Your task to perform on an android device: turn off improve location accuracy Image 0: 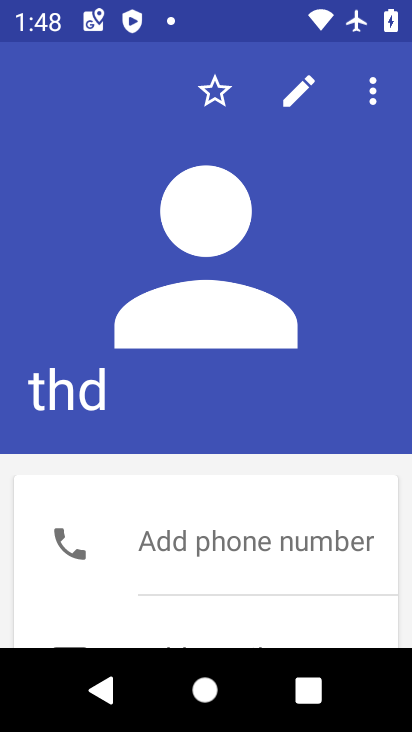
Step 0: press home button
Your task to perform on an android device: turn off improve location accuracy Image 1: 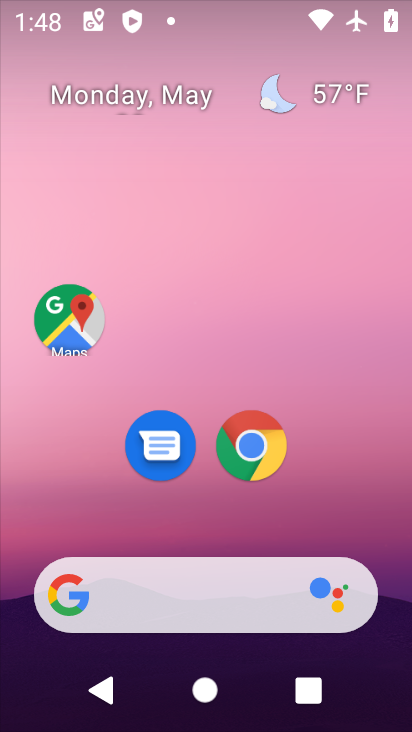
Step 1: drag from (237, 509) to (228, 124)
Your task to perform on an android device: turn off improve location accuracy Image 2: 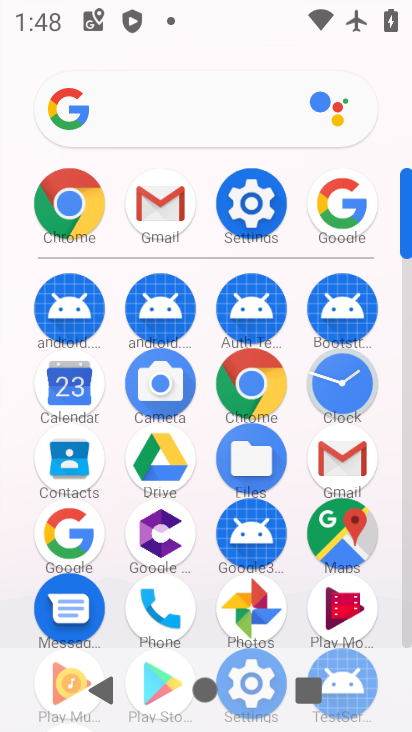
Step 2: click (253, 207)
Your task to perform on an android device: turn off improve location accuracy Image 3: 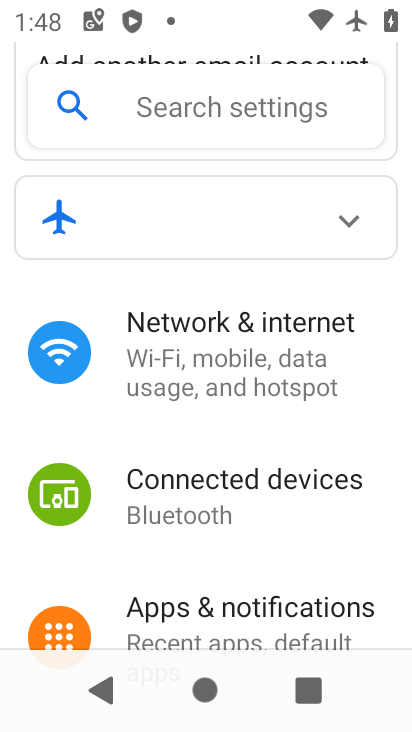
Step 3: drag from (240, 514) to (246, 118)
Your task to perform on an android device: turn off improve location accuracy Image 4: 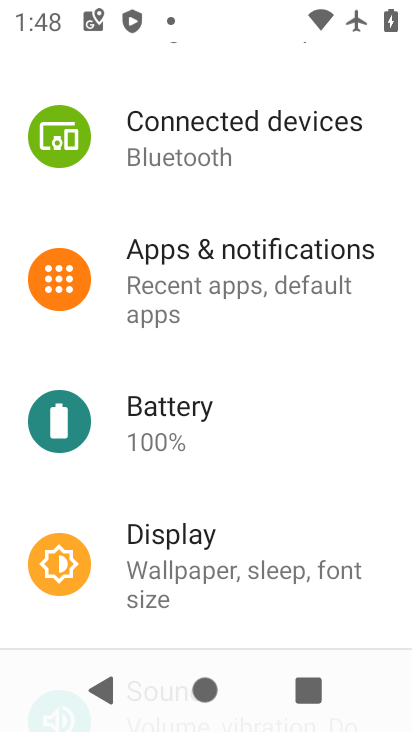
Step 4: drag from (212, 598) to (218, 61)
Your task to perform on an android device: turn off improve location accuracy Image 5: 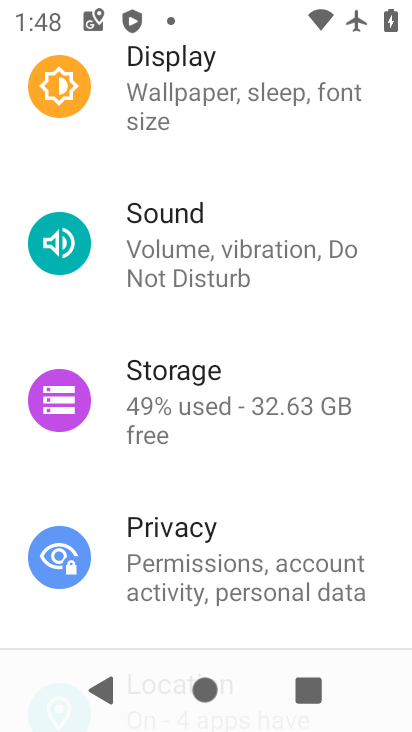
Step 5: drag from (194, 557) to (200, 103)
Your task to perform on an android device: turn off improve location accuracy Image 6: 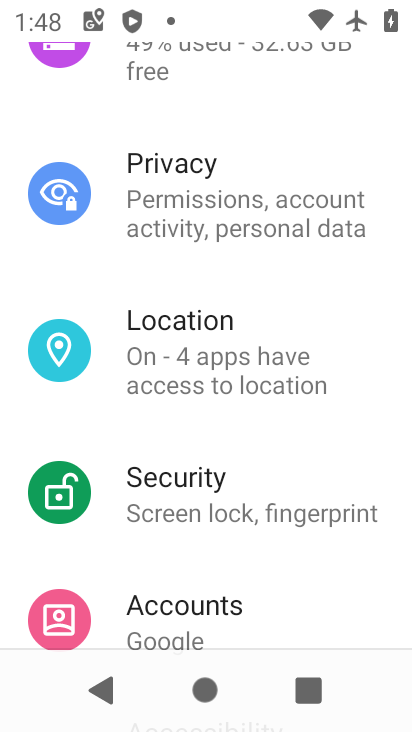
Step 6: click (176, 355)
Your task to perform on an android device: turn off improve location accuracy Image 7: 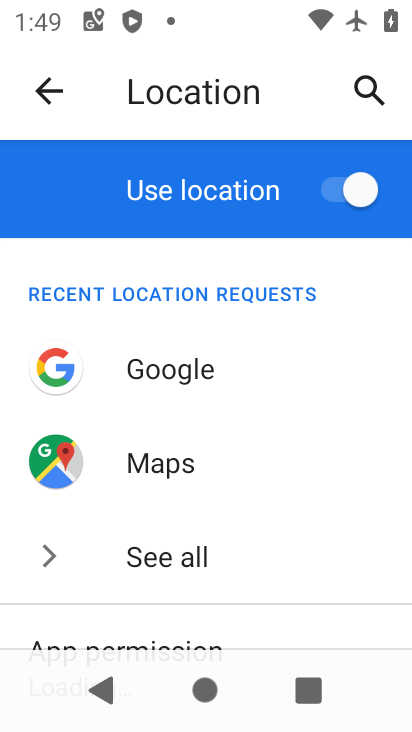
Step 7: drag from (205, 539) to (225, 99)
Your task to perform on an android device: turn off improve location accuracy Image 8: 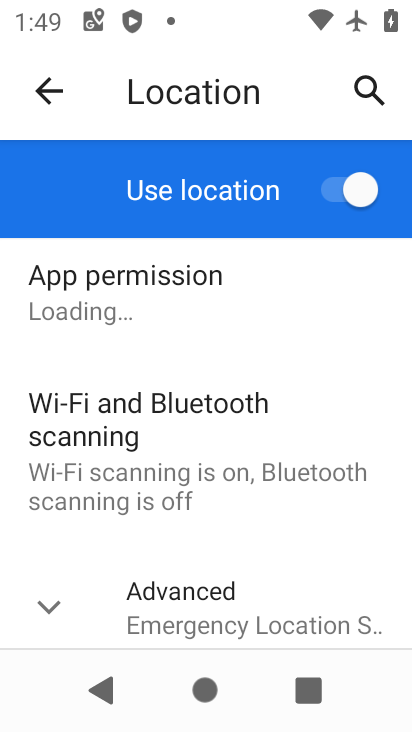
Step 8: drag from (218, 549) to (212, 122)
Your task to perform on an android device: turn off improve location accuracy Image 9: 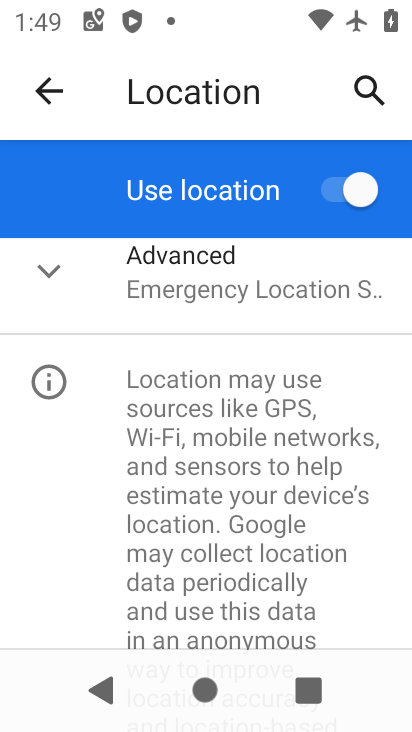
Step 9: click (156, 300)
Your task to perform on an android device: turn off improve location accuracy Image 10: 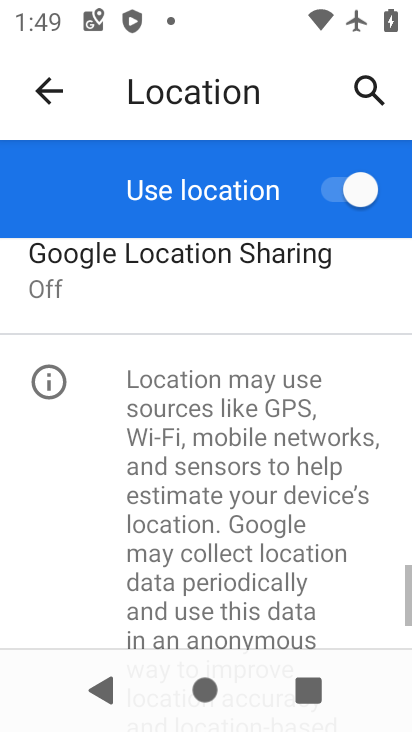
Step 10: drag from (232, 557) to (244, 730)
Your task to perform on an android device: turn off improve location accuracy Image 11: 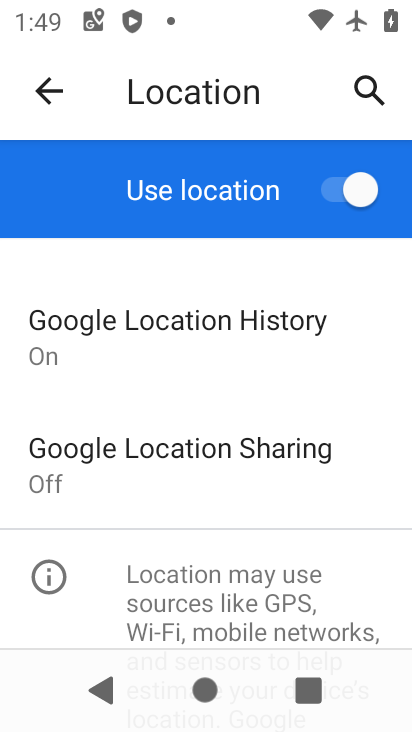
Step 11: drag from (187, 343) to (241, 613)
Your task to perform on an android device: turn off improve location accuracy Image 12: 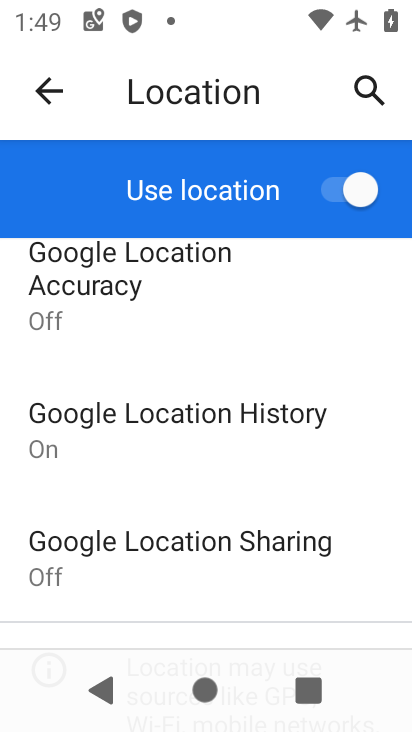
Step 12: click (145, 278)
Your task to perform on an android device: turn off improve location accuracy Image 13: 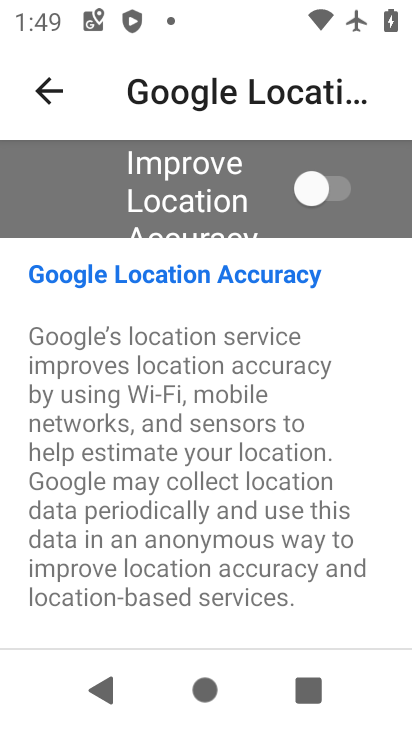
Step 13: task complete